Your task to perform on an android device: Open Google Image 0: 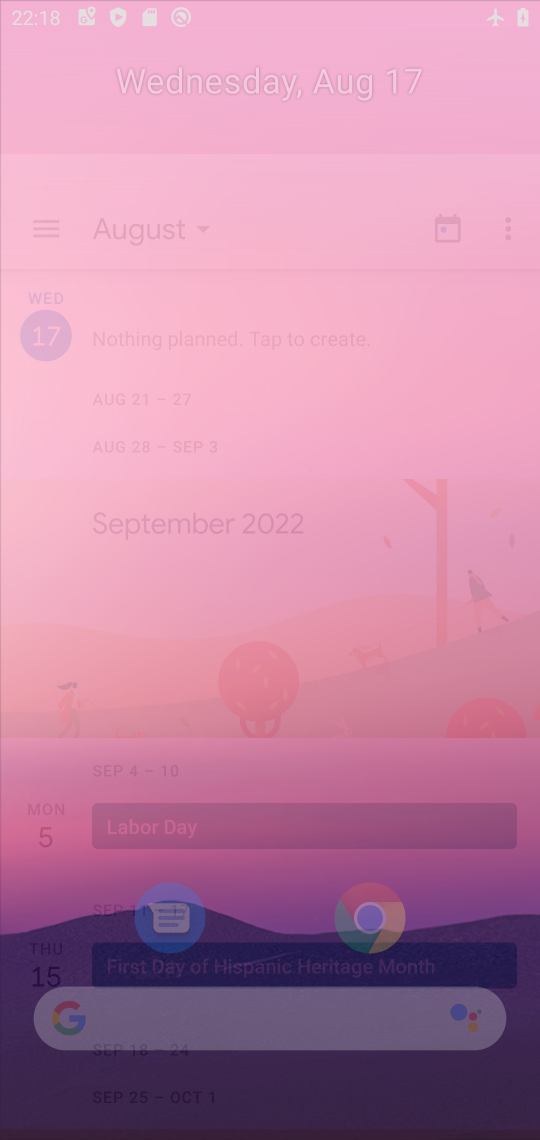
Step 0: press home button
Your task to perform on an android device: Open Google Image 1: 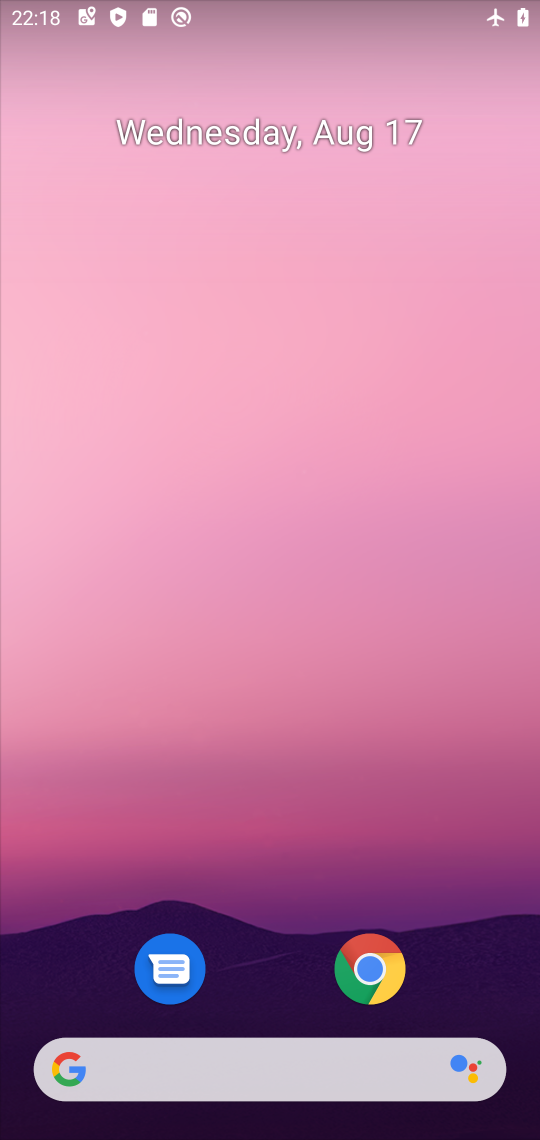
Step 1: click (64, 1064)
Your task to perform on an android device: Open Google Image 2: 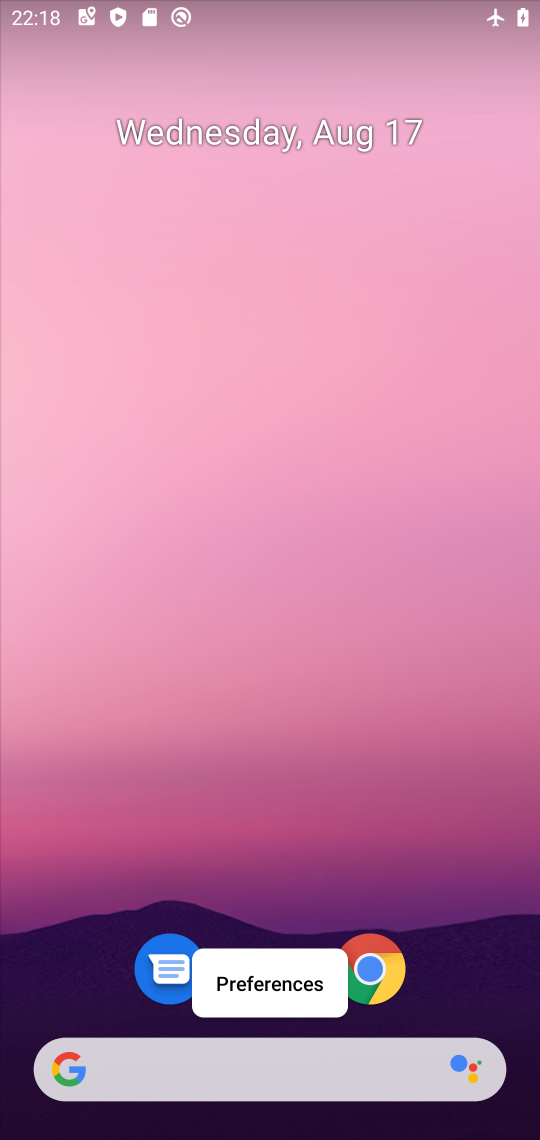
Step 2: click (70, 1060)
Your task to perform on an android device: Open Google Image 3: 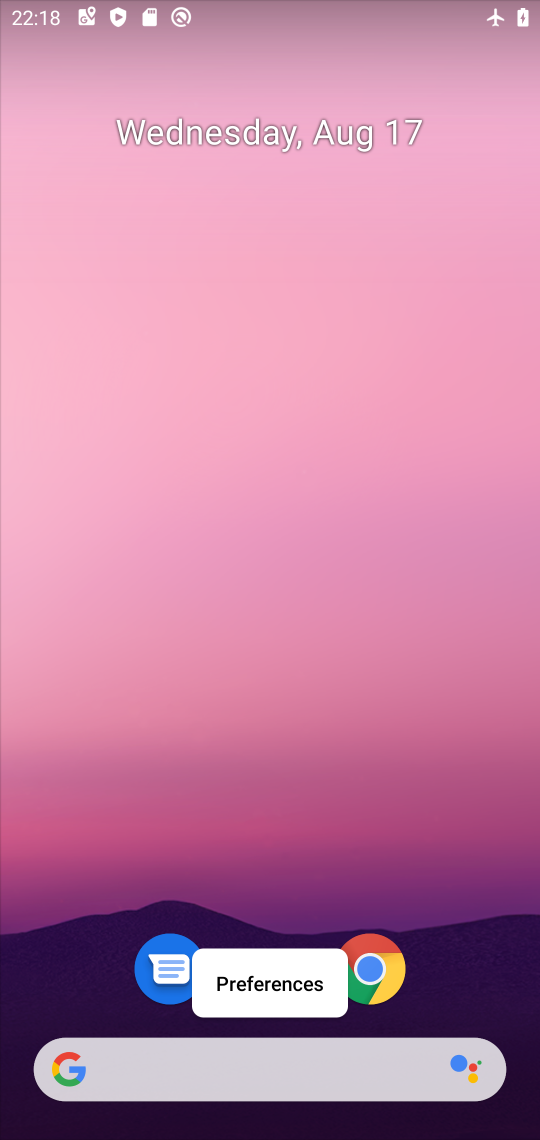
Step 3: drag from (258, 890) to (196, 258)
Your task to perform on an android device: Open Google Image 4: 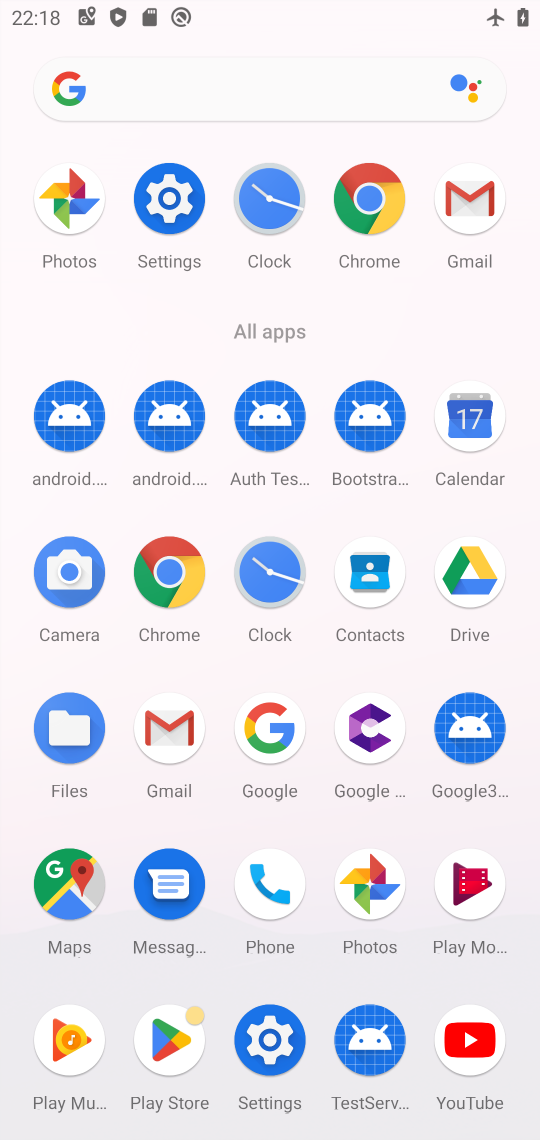
Step 4: click (277, 724)
Your task to perform on an android device: Open Google Image 5: 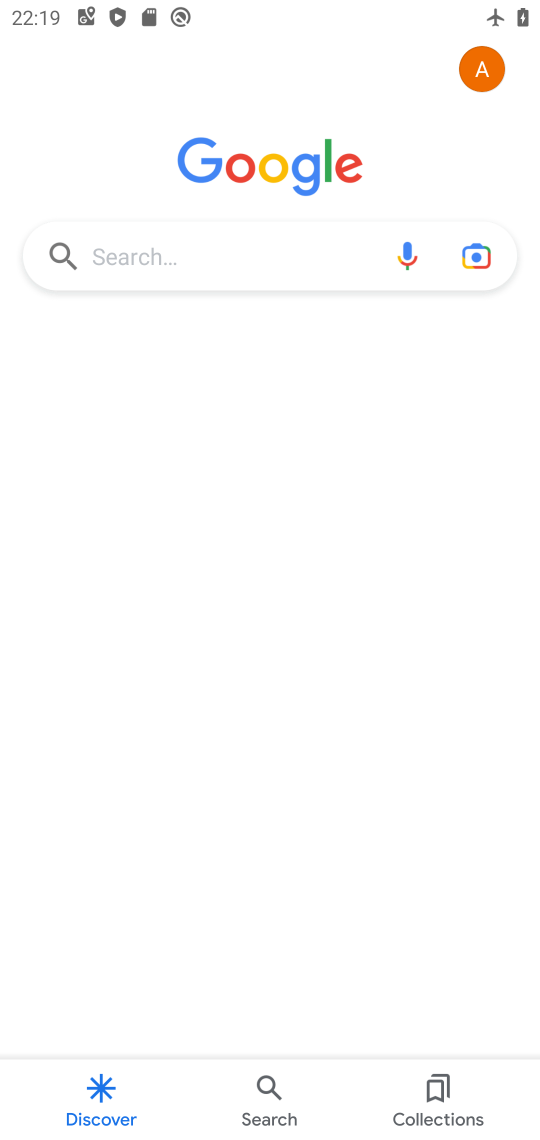
Step 5: task complete